Your task to perform on an android device: Add razer blackwidow to the cart on walmart.com, then select checkout. Image 0: 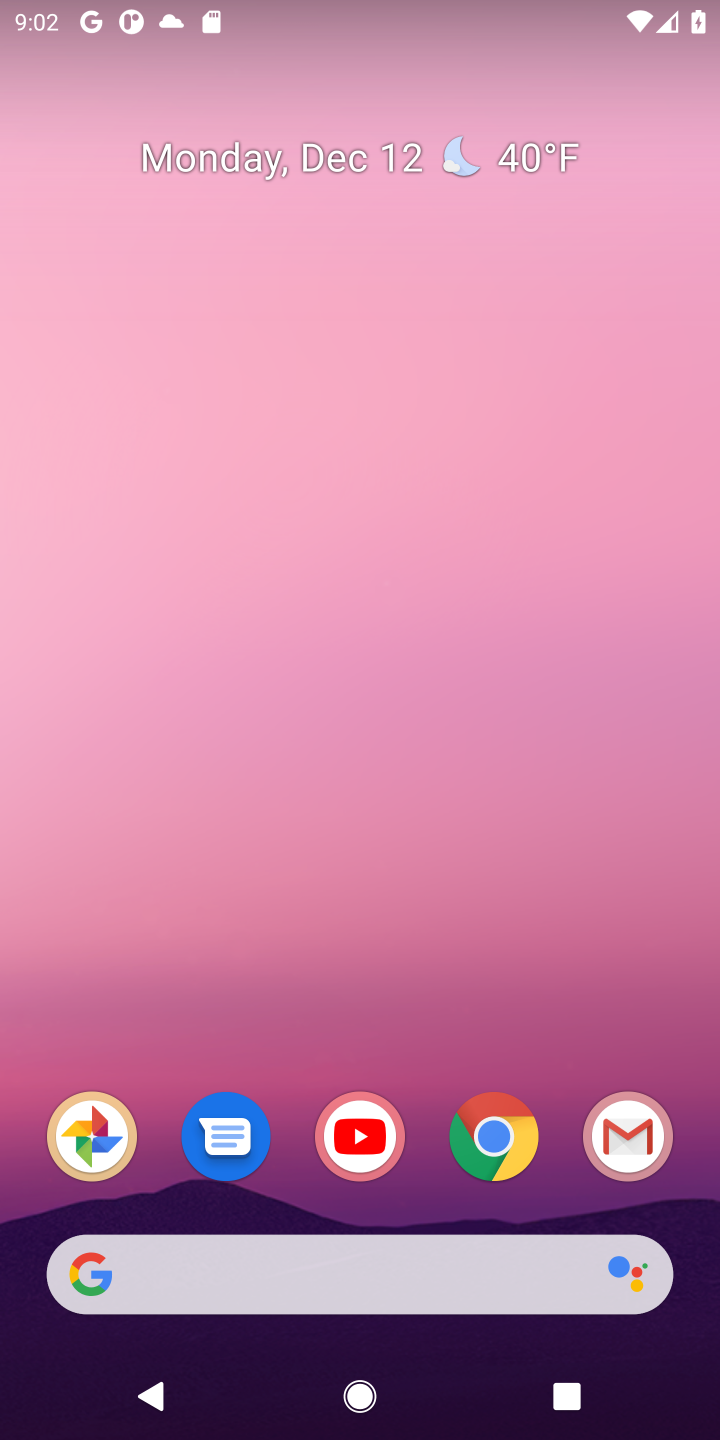
Step 0: click (489, 1139)
Your task to perform on an android device: Add razer blackwidow to the cart on walmart.com, then select checkout. Image 1: 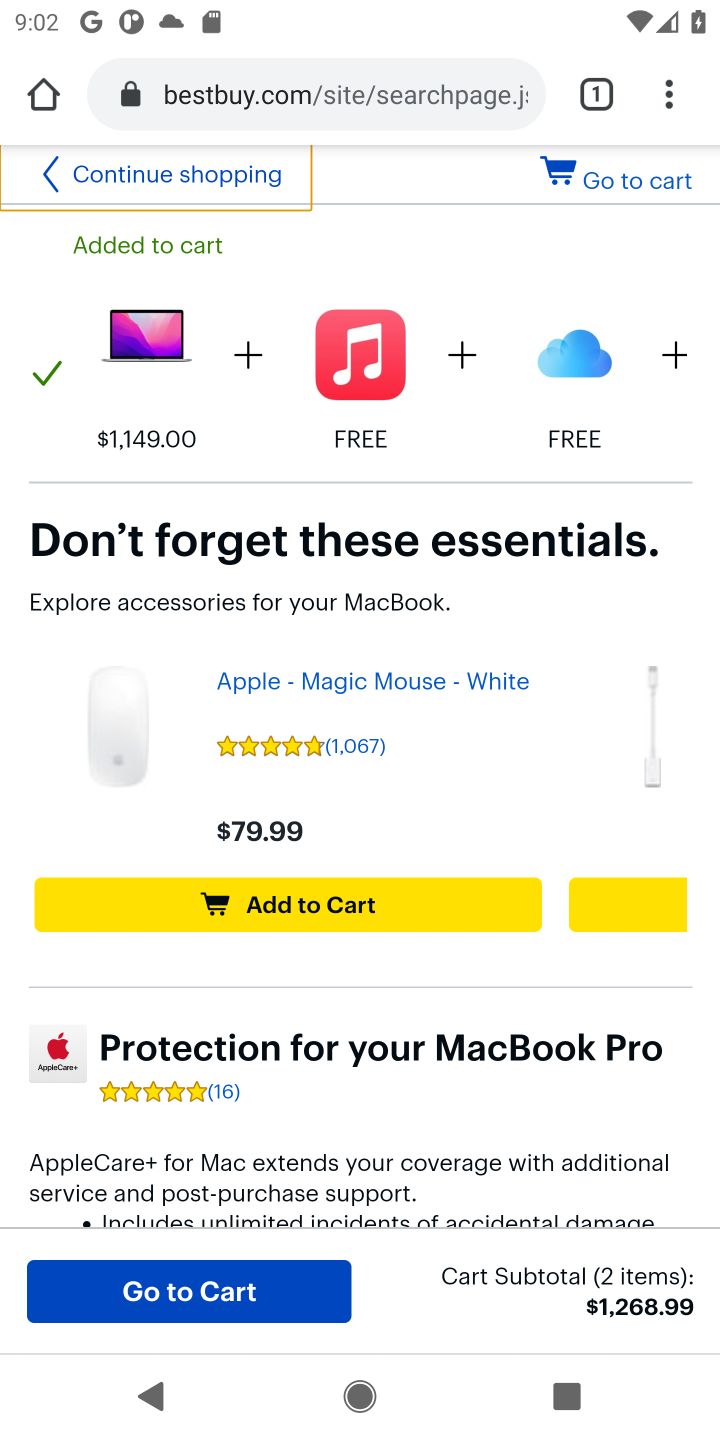
Step 1: click (292, 94)
Your task to perform on an android device: Add razer blackwidow to the cart on walmart.com, then select checkout. Image 2: 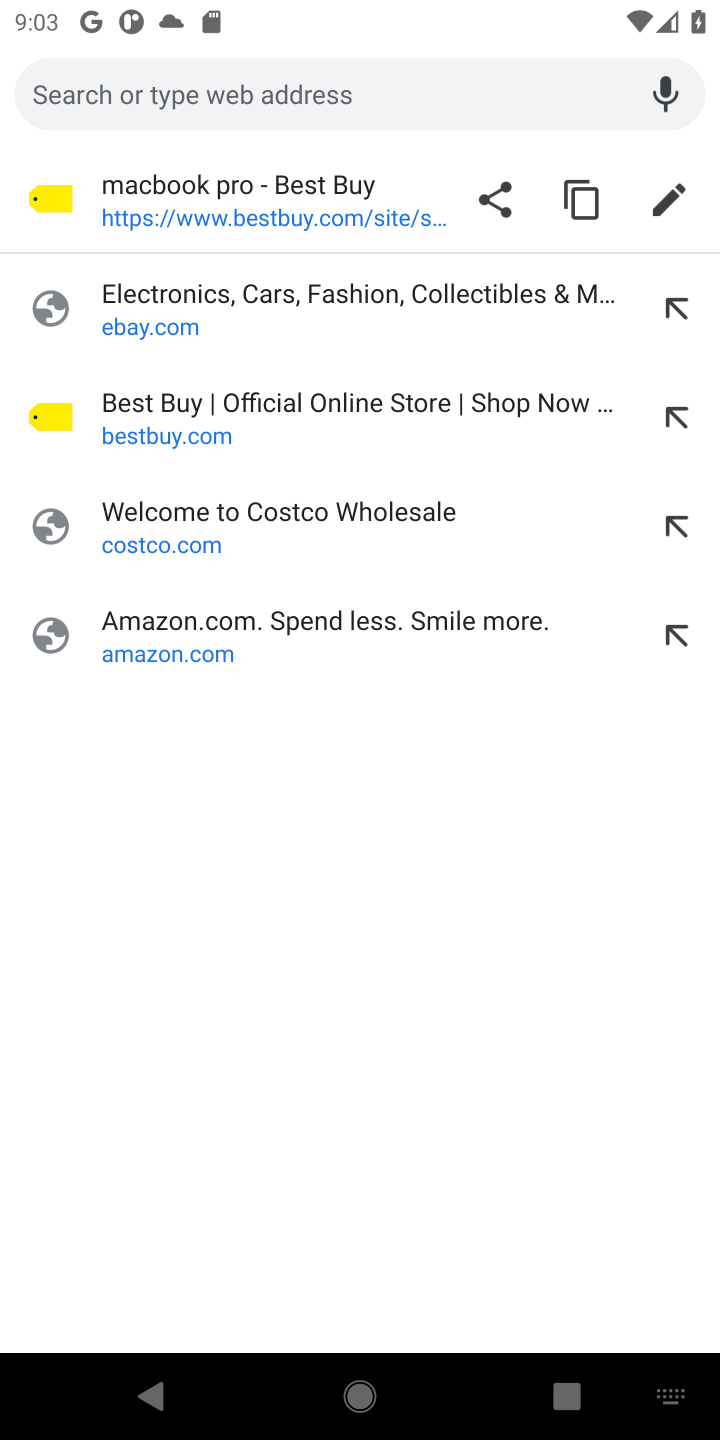
Step 2: type "walmart.com"
Your task to perform on an android device: Add razer blackwidow to the cart on walmart.com, then select checkout. Image 3: 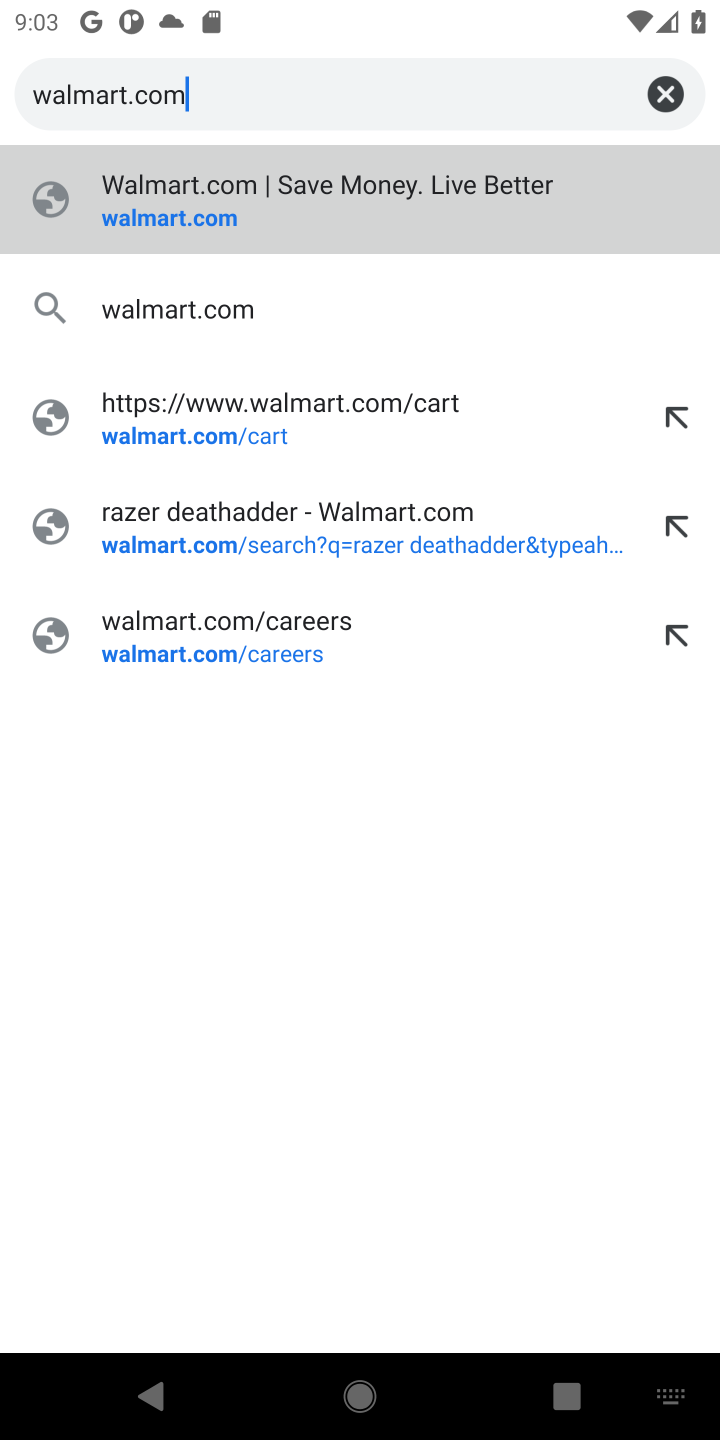
Step 3: click (152, 223)
Your task to perform on an android device: Add razer blackwidow to the cart on walmart.com, then select checkout. Image 4: 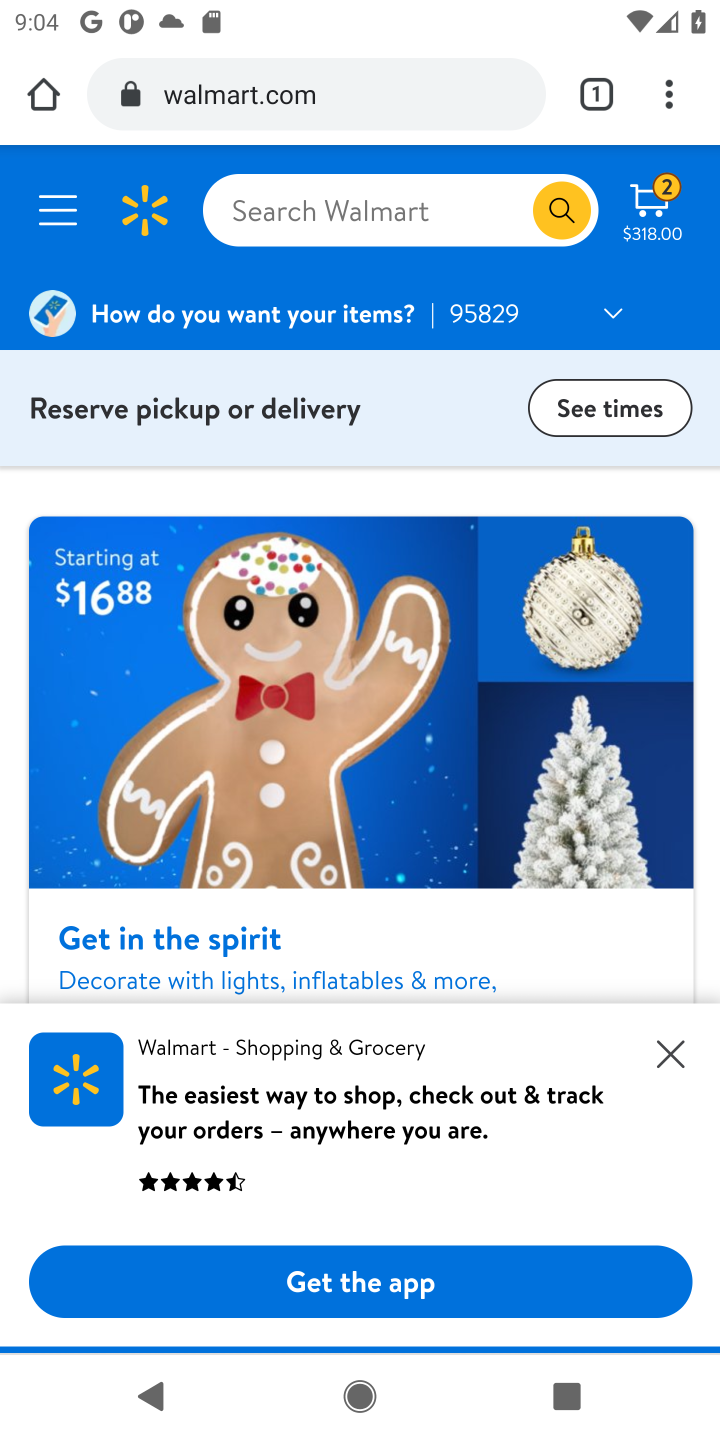
Step 4: click (334, 205)
Your task to perform on an android device: Add razer blackwidow to the cart on walmart.com, then select checkout. Image 5: 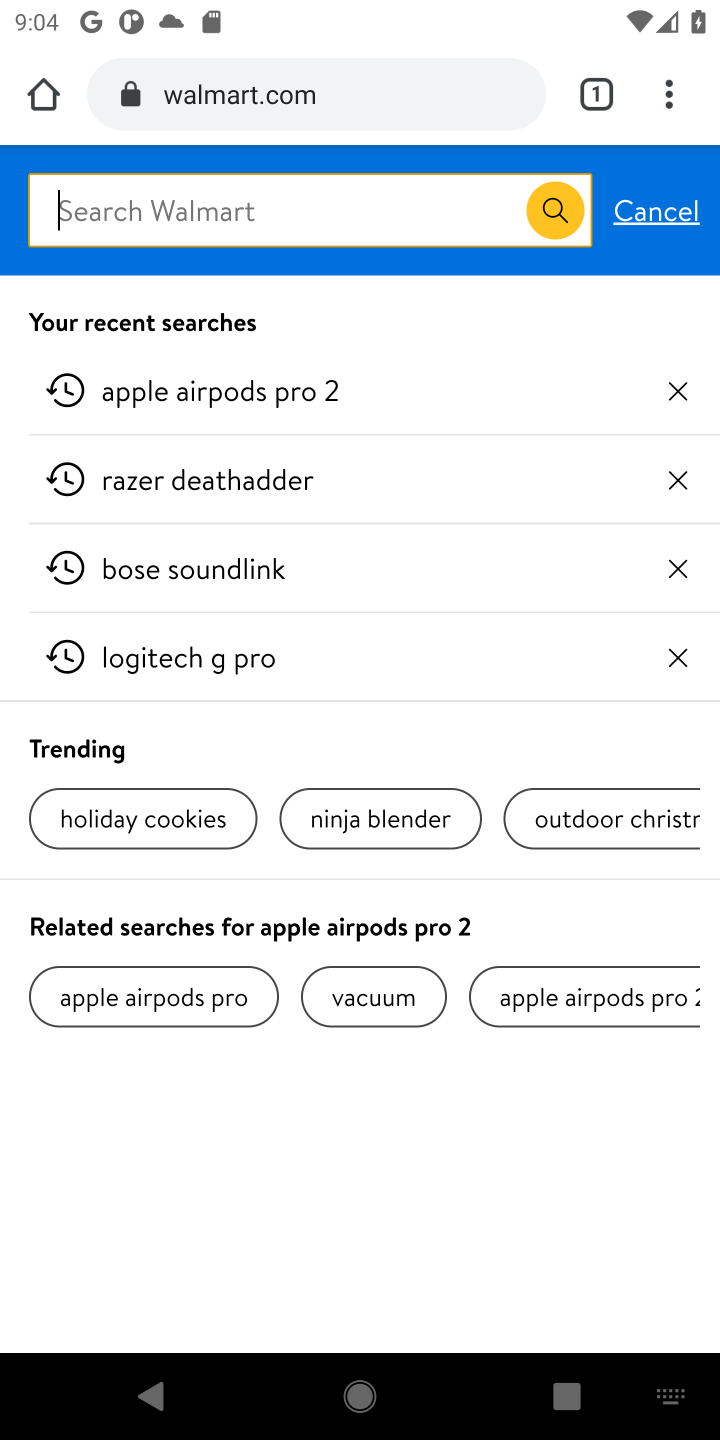
Step 5: type "razer blackwidow"
Your task to perform on an android device: Add razer blackwidow to the cart on walmart.com, then select checkout. Image 6: 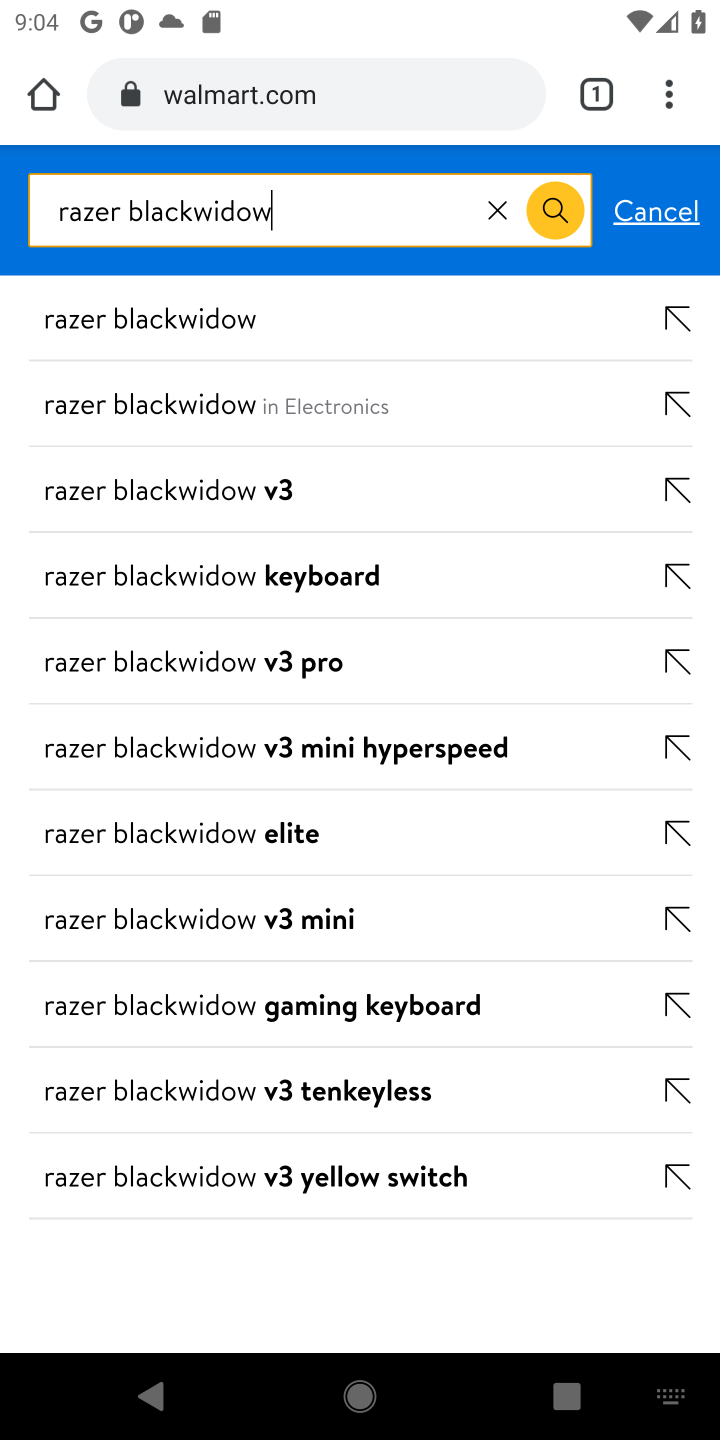
Step 6: click (111, 328)
Your task to perform on an android device: Add razer blackwidow to the cart on walmart.com, then select checkout. Image 7: 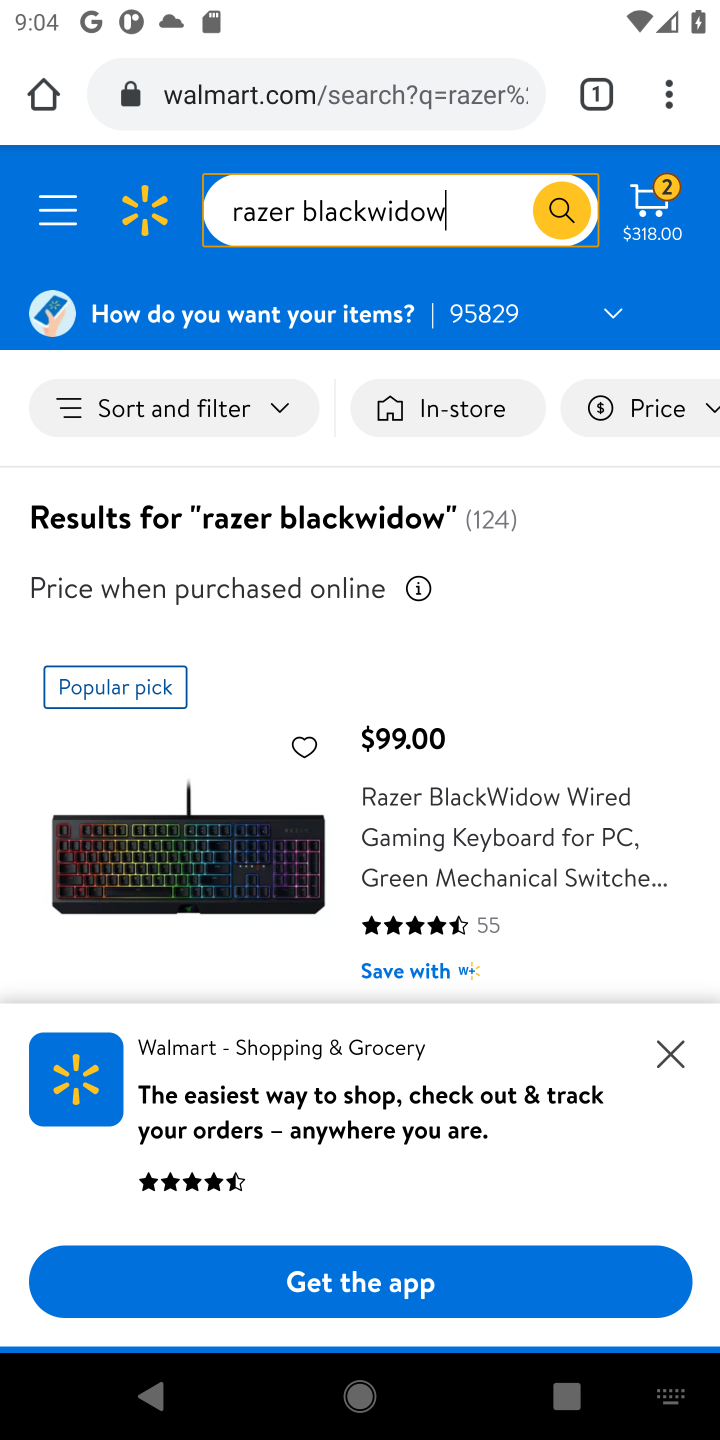
Step 7: drag from (285, 927) to (287, 539)
Your task to perform on an android device: Add razer blackwidow to the cart on walmart.com, then select checkout. Image 8: 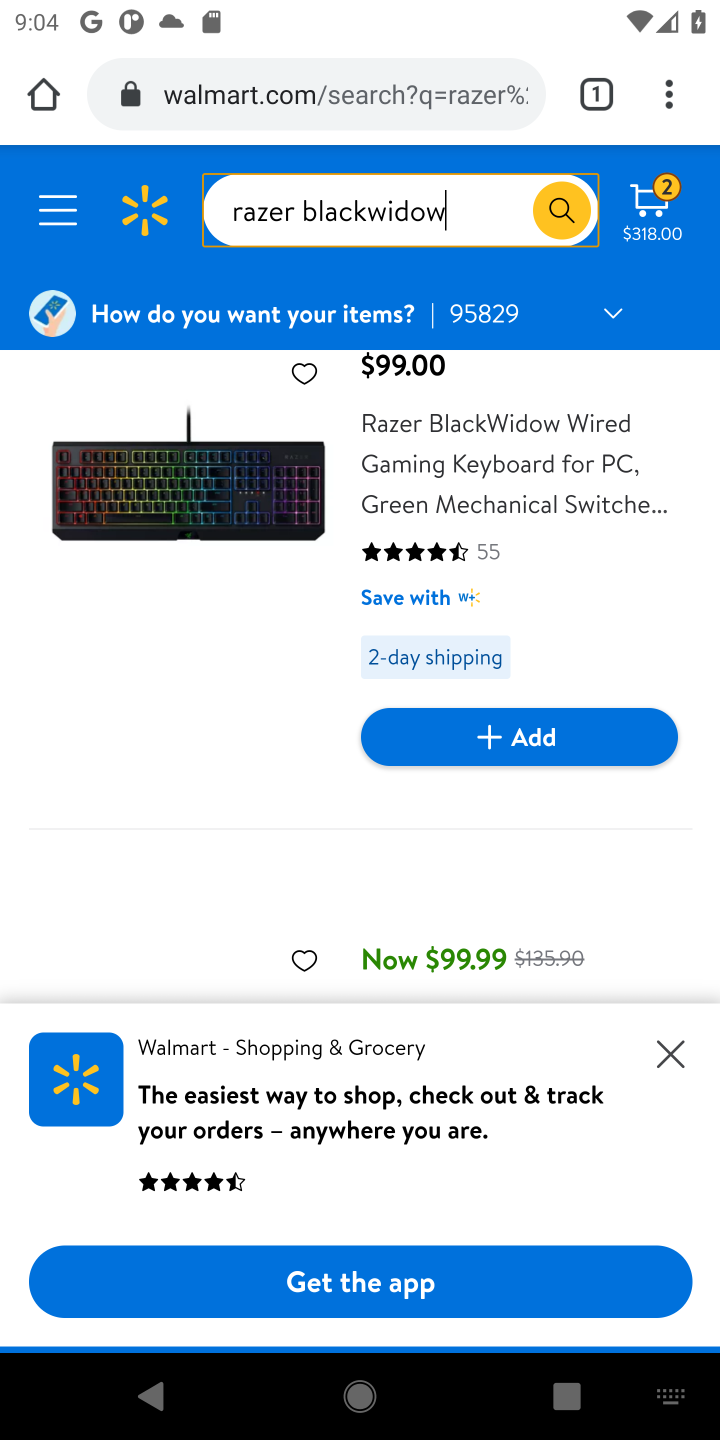
Step 8: click (541, 744)
Your task to perform on an android device: Add razer blackwidow to the cart on walmart.com, then select checkout. Image 9: 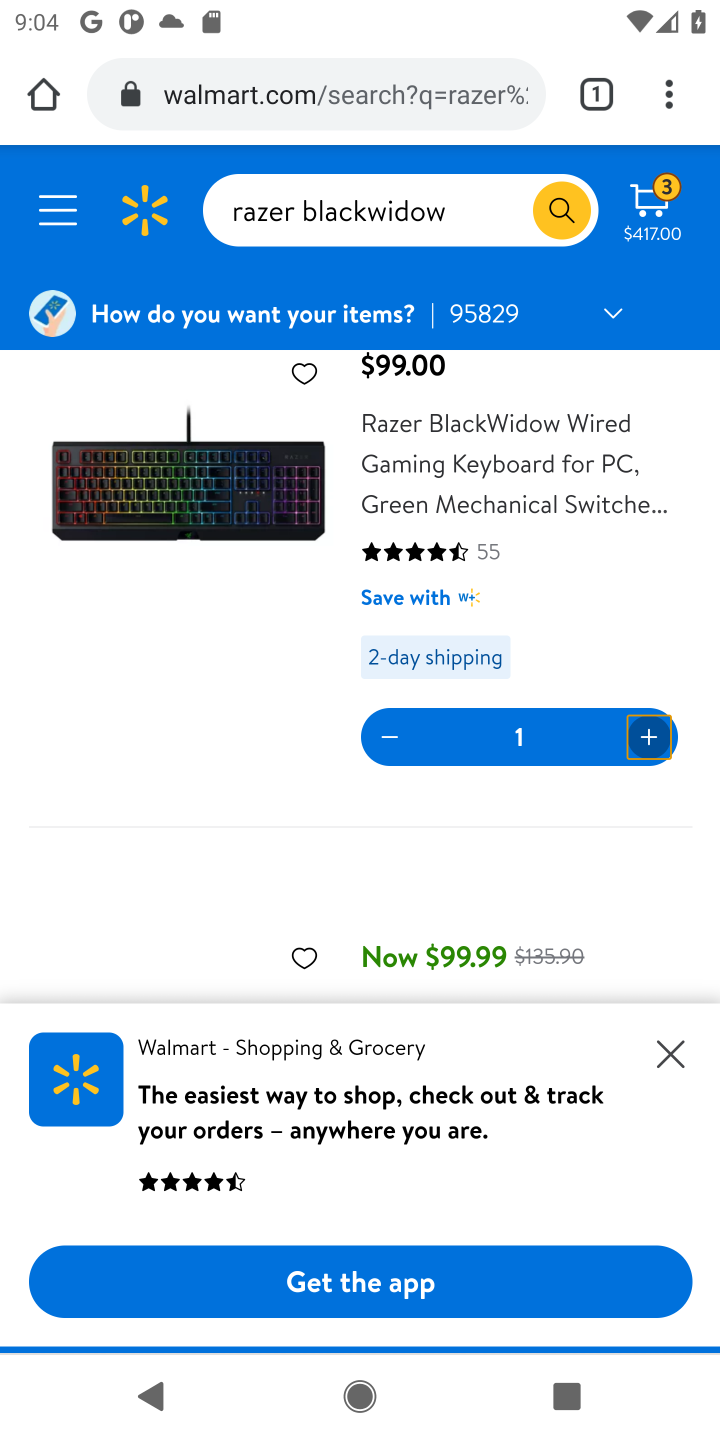
Step 9: click (652, 226)
Your task to perform on an android device: Add razer blackwidow to the cart on walmart.com, then select checkout. Image 10: 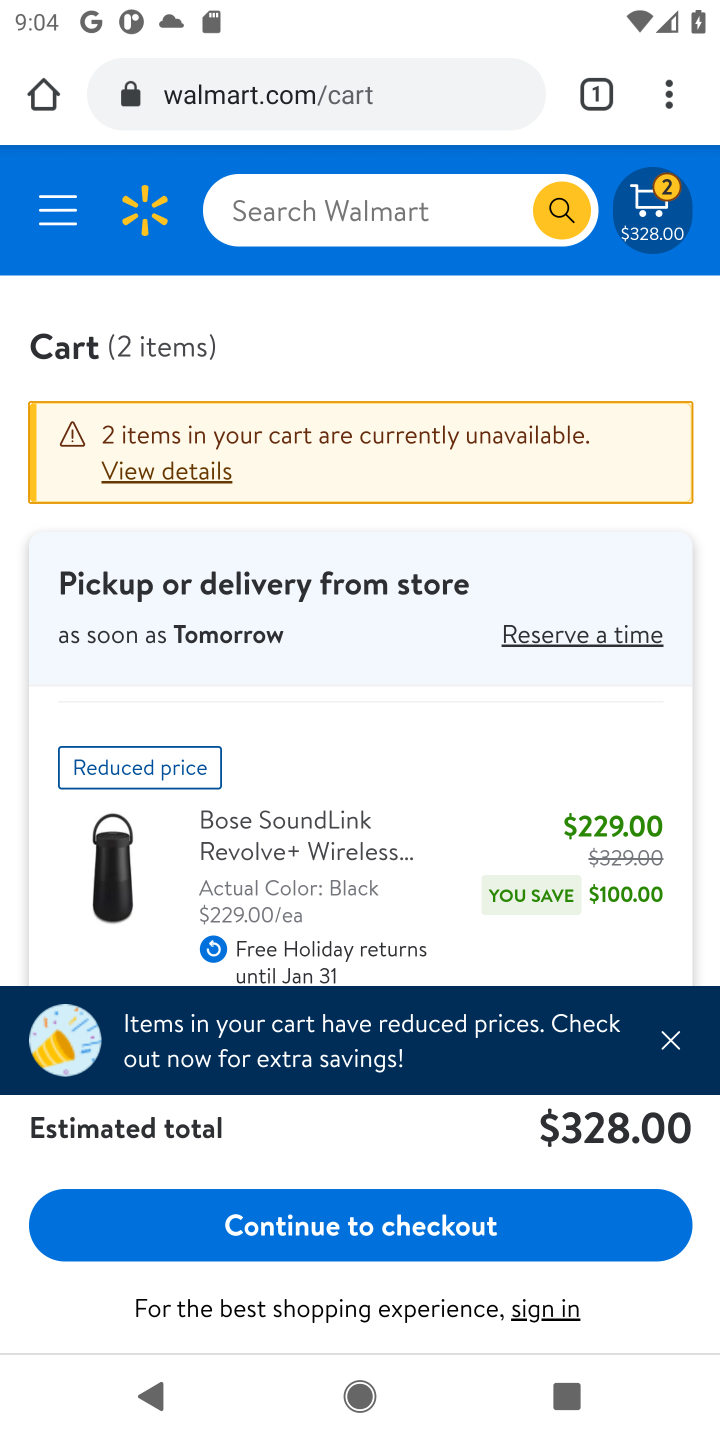
Step 10: click (264, 1233)
Your task to perform on an android device: Add razer blackwidow to the cart on walmart.com, then select checkout. Image 11: 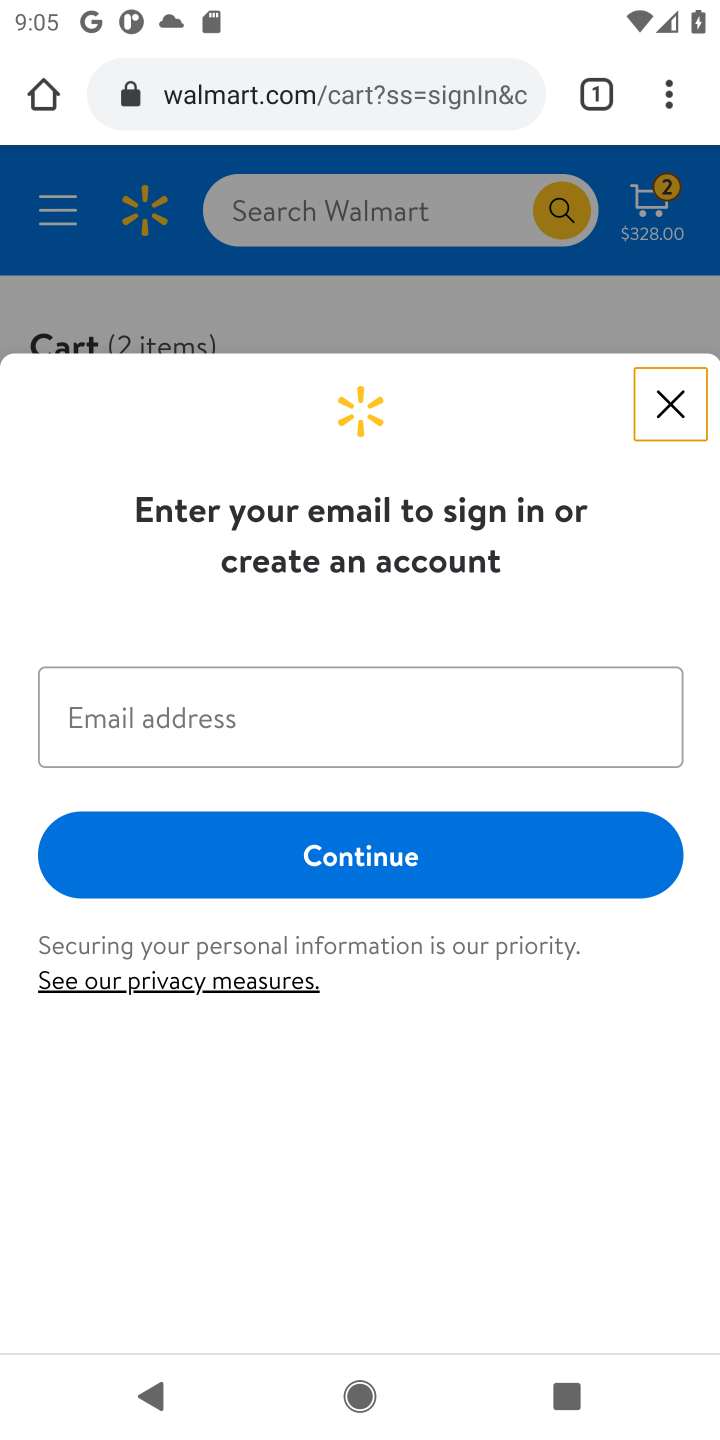
Step 11: task complete